Your task to perform on an android device: Open network settings Image 0: 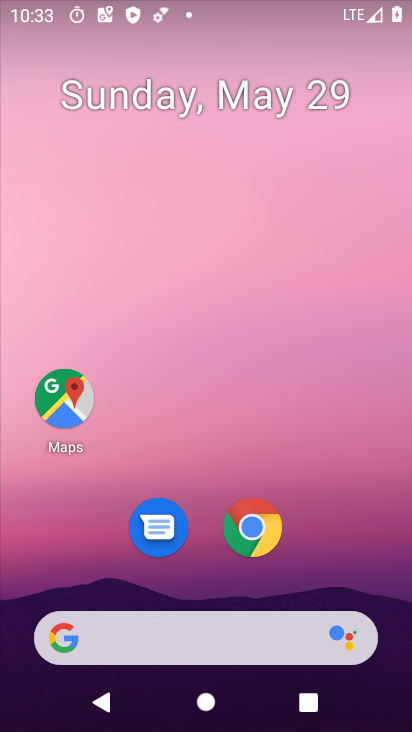
Step 0: drag from (354, 535) to (337, 56)
Your task to perform on an android device: Open network settings Image 1: 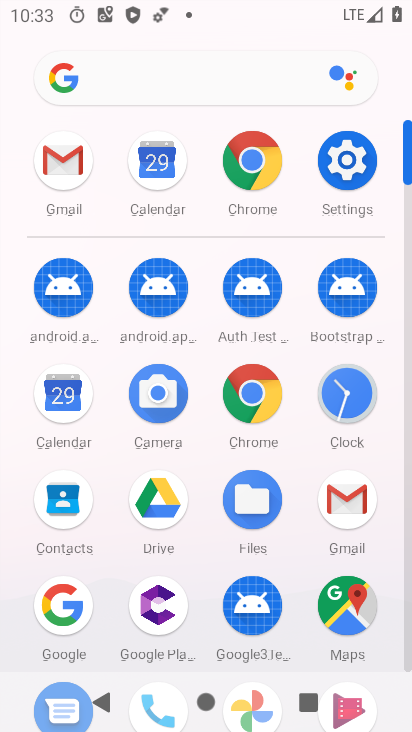
Step 1: click (345, 162)
Your task to perform on an android device: Open network settings Image 2: 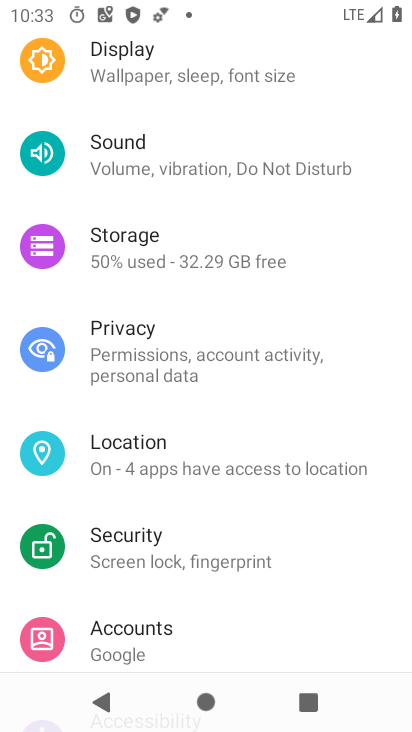
Step 2: drag from (203, 103) to (214, 530)
Your task to perform on an android device: Open network settings Image 3: 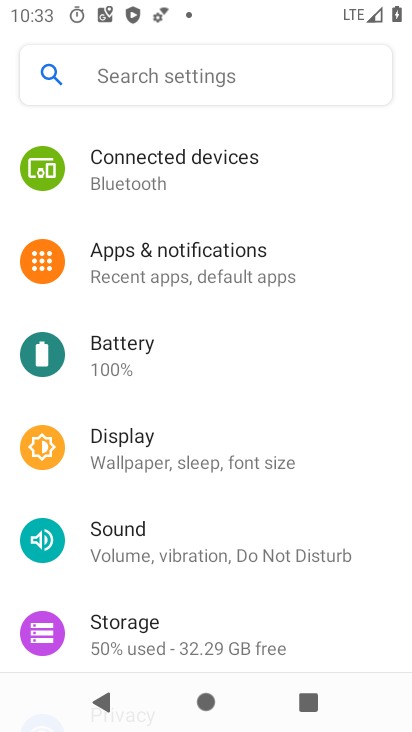
Step 3: drag from (186, 192) to (261, 548)
Your task to perform on an android device: Open network settings Image 4: 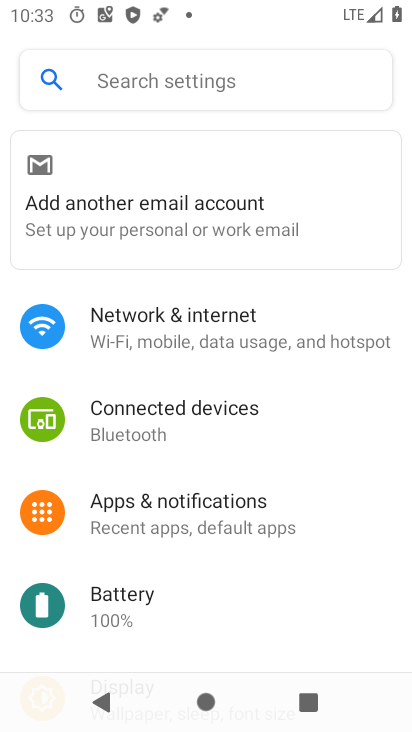
Step 4: click (213, 319)
Your task to perform on an android device: Open network settings Image 5: 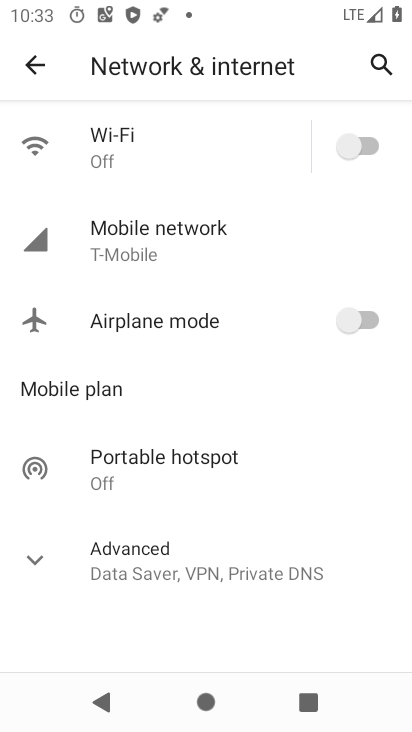
Step 5: task complete